Your task to perform on an android device: add a contact Image 0: 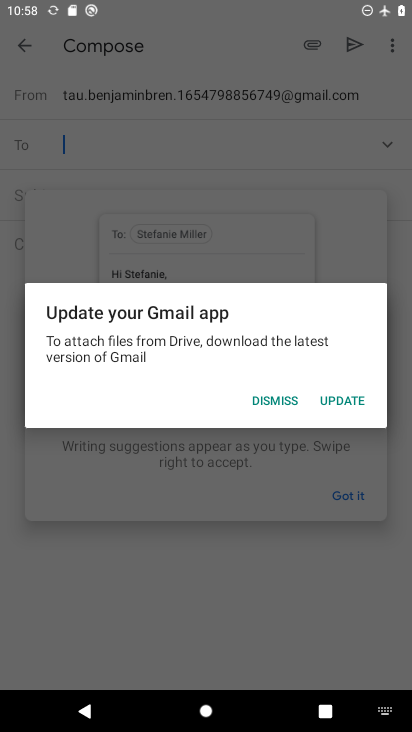
Step 0: press home button
Your task to perform on an android device: add a contact Image 1: 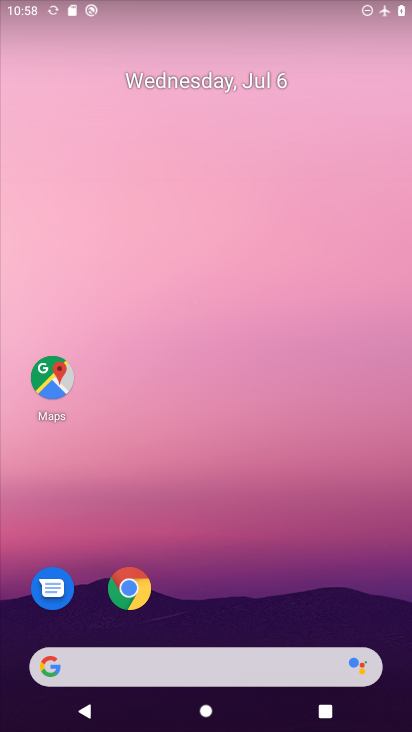
Step 1: drag from (250, 621) to (243, 115)
Your task to perform on an android device: add a contact Image 2: 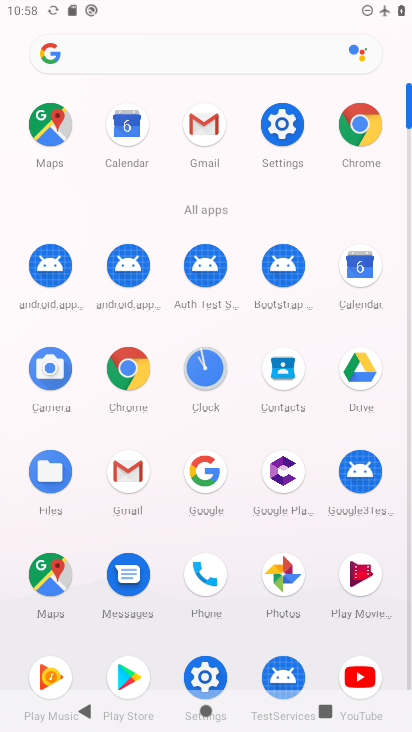
Step 2: click (280, 376)
Your task to perform on an android device: add a contact Image 3: 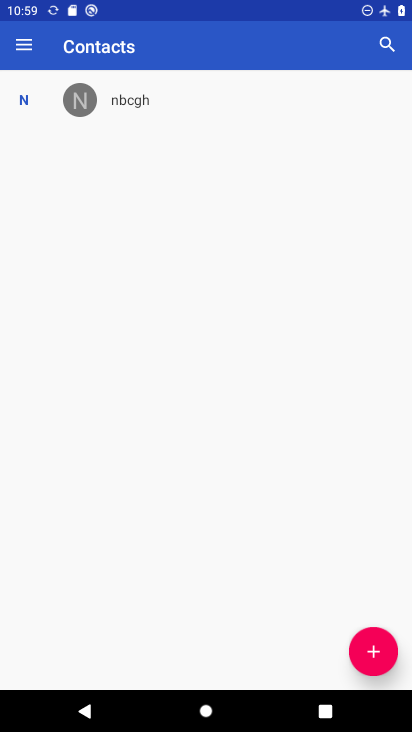
Step 3: click (386, 661)
Your task to perform on an android device: add a contact Image 4: 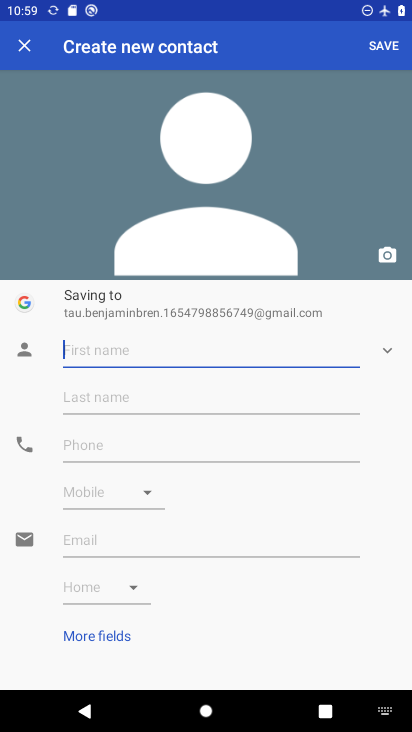
Step 4: type "cchchc"
Your task to perform on an android device: add a contact Image 5: 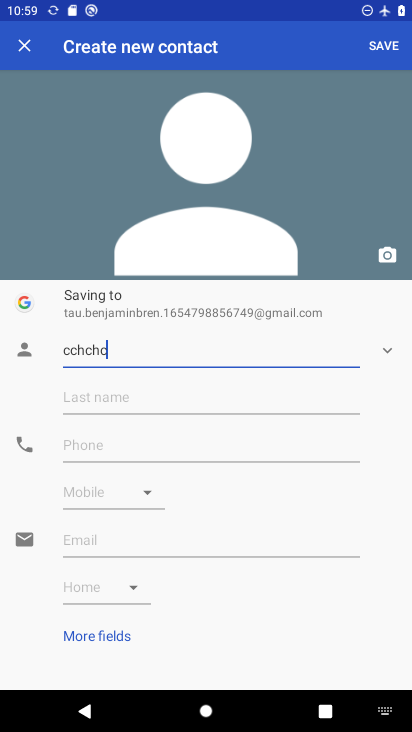
Step 5: click (142, 449)
Your task to perform on an android device: add a contact Image 6: 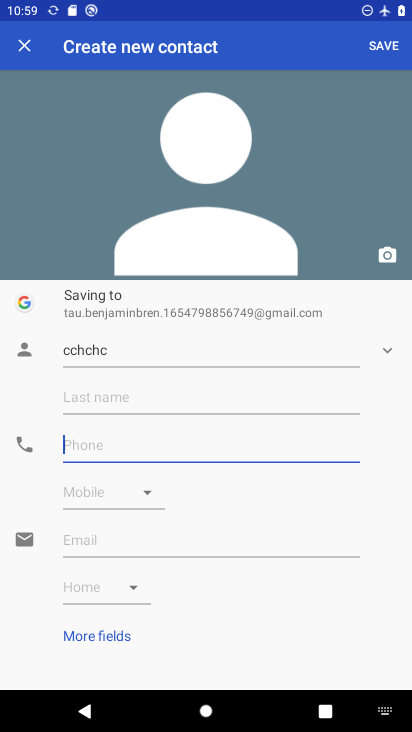
Step 6: type "676876876"
Your task to perform on an android device: add a contact Image 7: 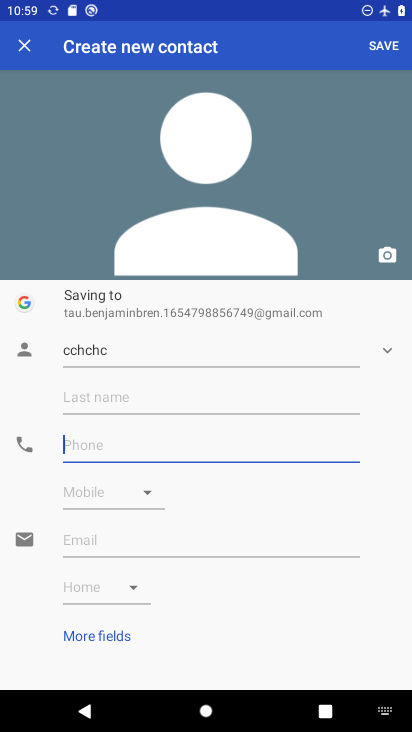
Step 7: click (378, 43)
Your task to perform on an android device: add a contact Image 8: 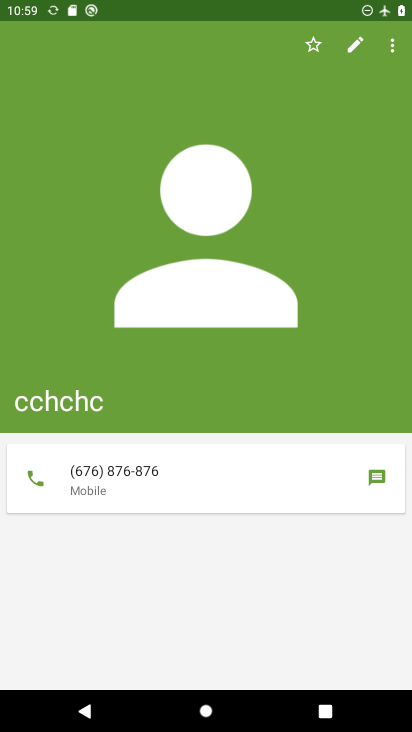
Step 8: task complete